Your task to perform on an android device: turn on data saver in the chrome app Image 0: 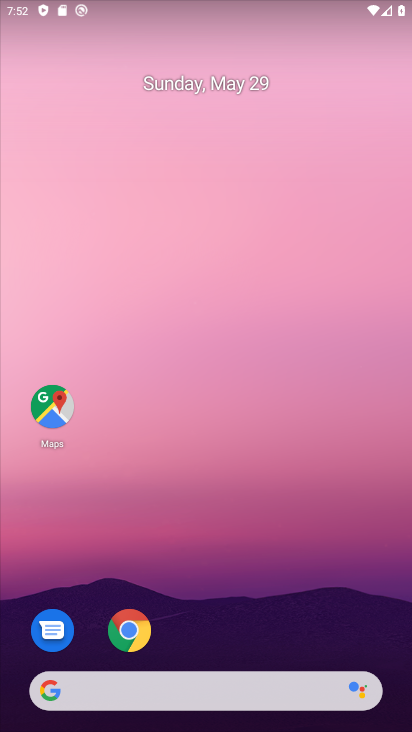
Step 0: click (142, 633)
Your task to perform on an android device: turn on data saver in the chrome app Image 1: 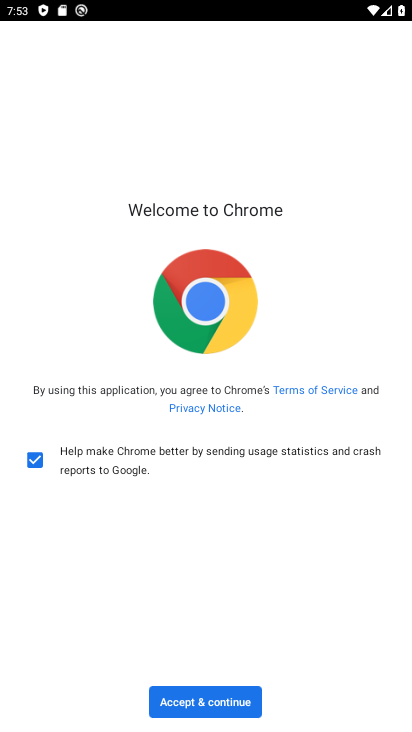
Step 1: click (200, 699)
Your task to perform on an android device: turn on data saver in the chrome app Image 2: 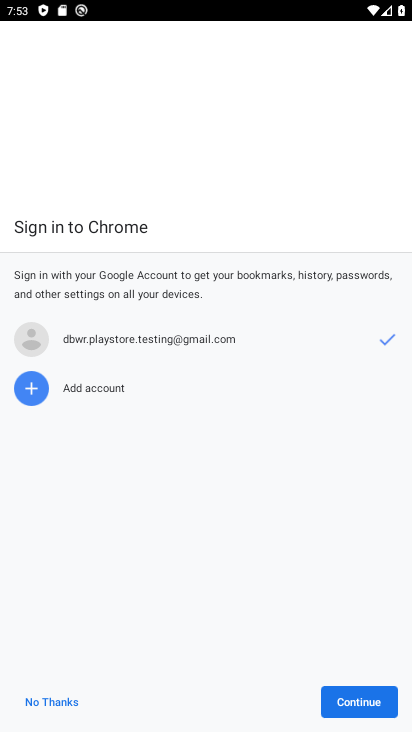
Step 2: click (347, 695)
Your task to perform on an android device: turn on data saver in the chrome app Image 3: 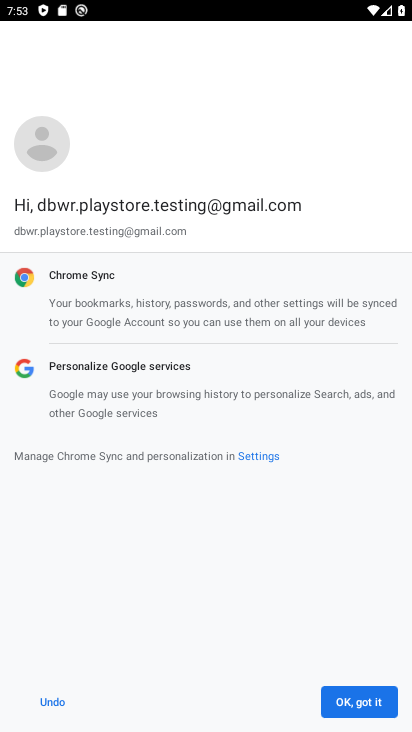
Step 3: click (347, 695)
Your task to perform on an android device: turn on data saver in the chrome app Image 4: 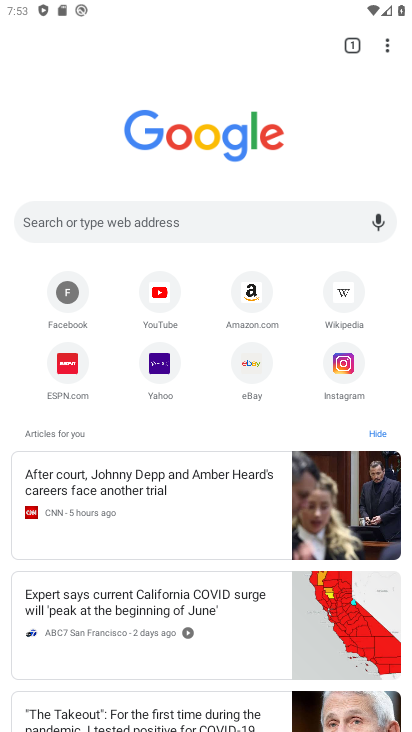
Step 4: click (387, 38)
Your task to perform on an android device: turn on data saver in the chrome app Image 5: 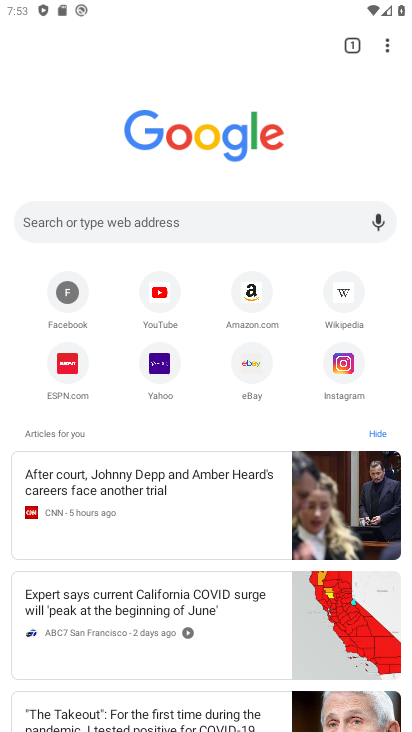
Step 5: click (386, 44)
Your task to perform on an android device: turn on data saver in the chrome app Image 6: 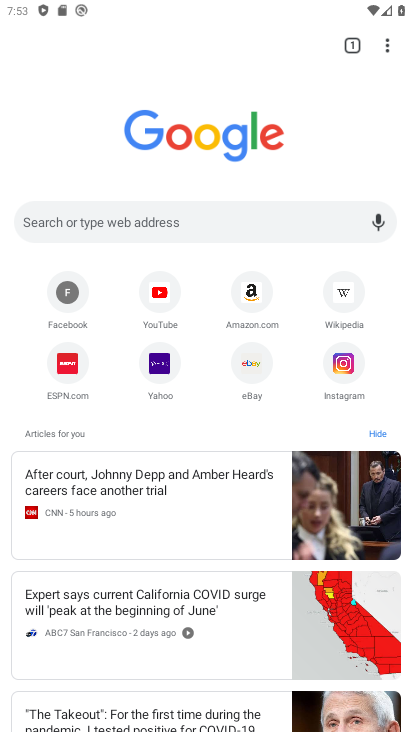
Step 6: click (385, 49)
Your task to perform on an android device: turn on data saver in the chrome app Image 7: 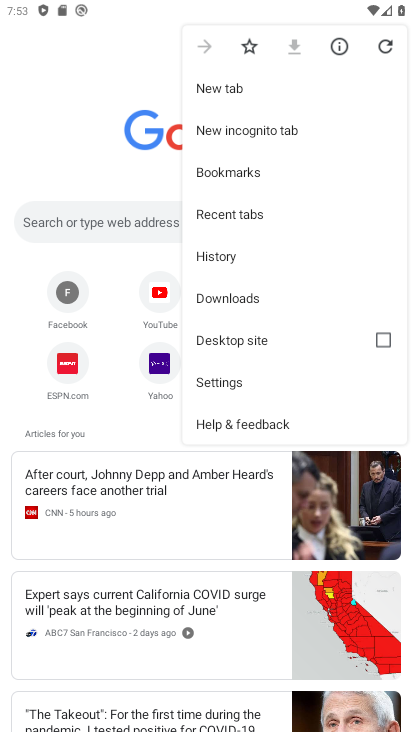
Step 7: click (205, 383)
Your task to perform on an android device: turn on data saver in the chrome app Image 8: 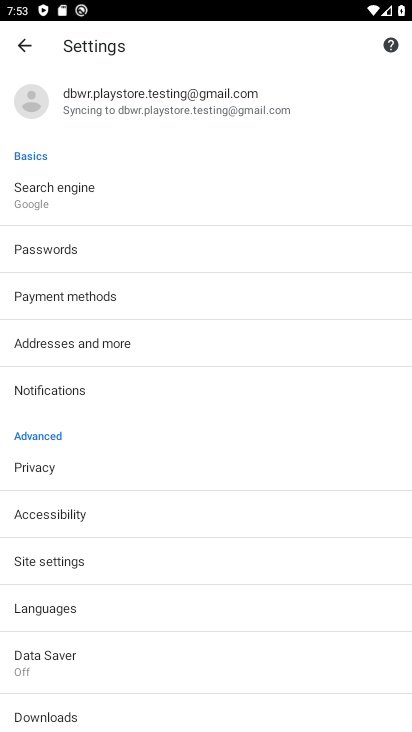
Step 8: click (45, 667)
Your task to perform on an android device: turn on data saver in the chrome app Image 9: 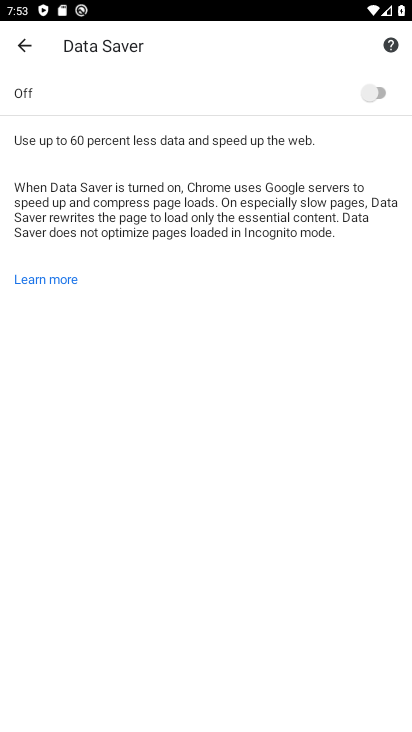
Step 9: click (361, 87)
Your task to perform on an android device: turn on data saver in the chrome app Image 10: 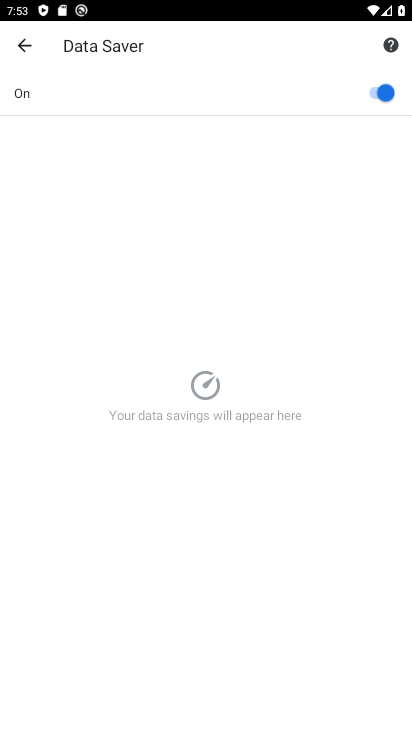
Step 10: task complete